Your task to perform on an android device: Go to sound settings Image 0: 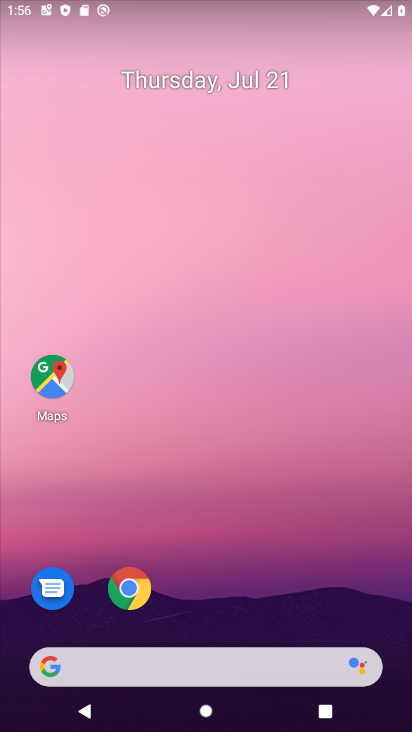
Step 0: drag from (208, 617) to (287, 335)
Your task to perform on an android device: Go to sound settings Image 1: 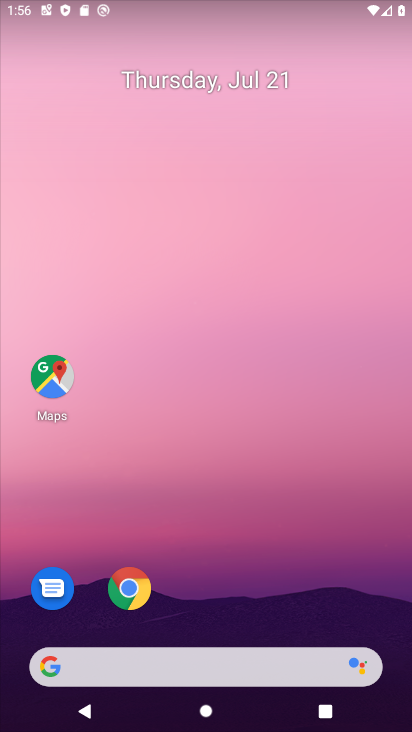
Step 1: drag from (218, 538) to (365, 98)
Your task to perform on an android device: Go to sound settings Image 2: 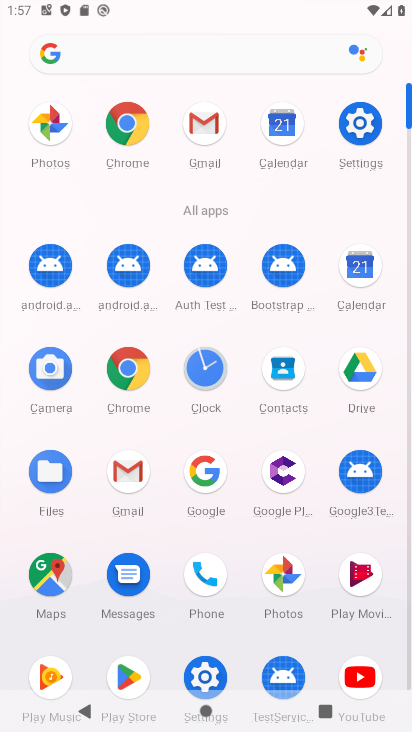
Step 2: click (212, 661)
Your task to perform on an android device: Go to sound settings Image 3: 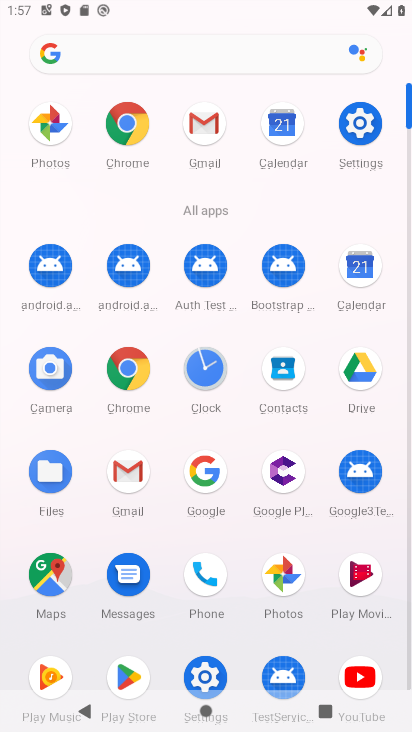
Step 3: click (211, 658)
Your task to perform on an android device: Go to sound settings Image 4: 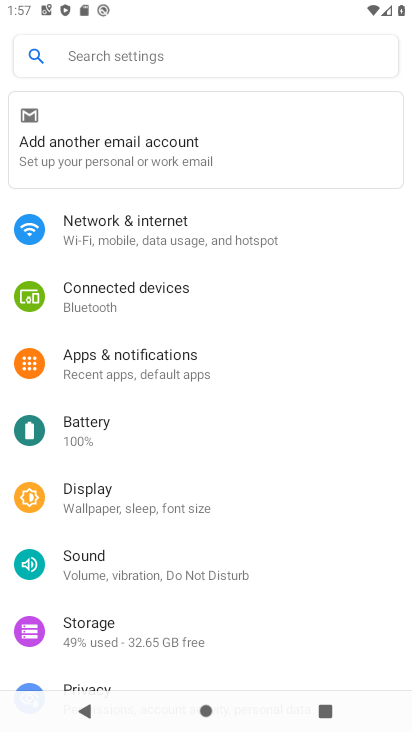
Step 4: click (93, 569)
Your task to perform on an android device: Go to sound settings Image 5: 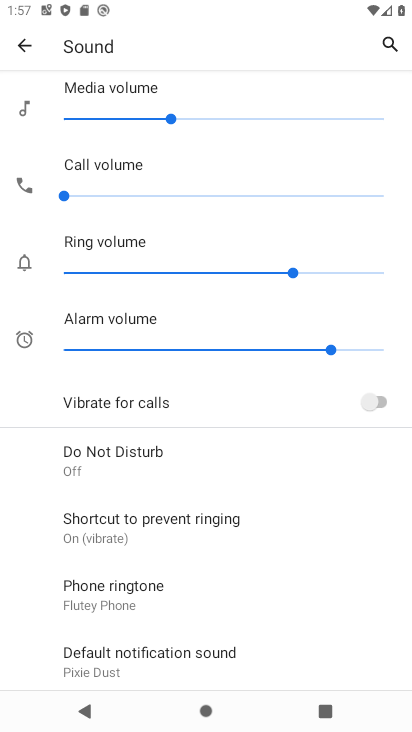
Step 5: task complete